Your task to perform on an android device: turn on wifi Image 0: 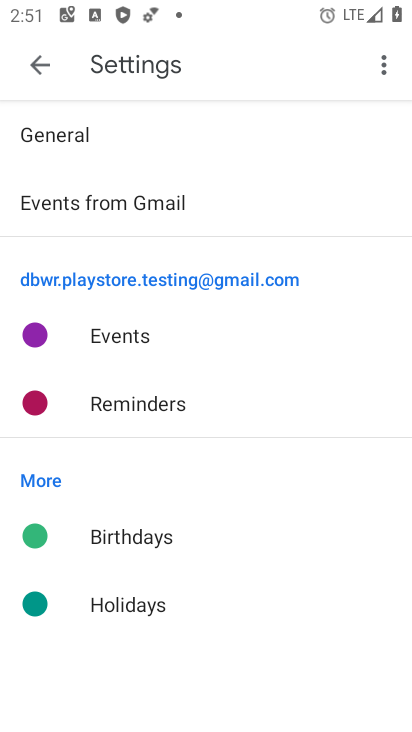
Step 0: drag from (164, 207) to (235, 528)
Your task to perform on an android device: turn on wifi Image 1: 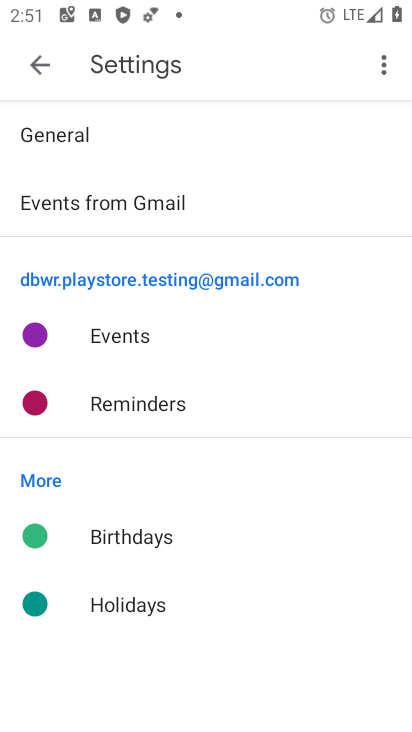
Step 1: click (42, 65)
Your task to perform on an android device: turn on wifi Image 2: 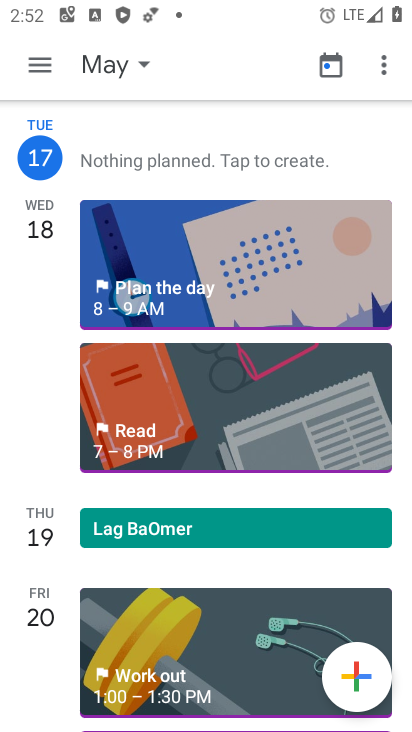
Step 2: click (109, 74)
Your task to perform on an android device: turn on wifi Image 3: 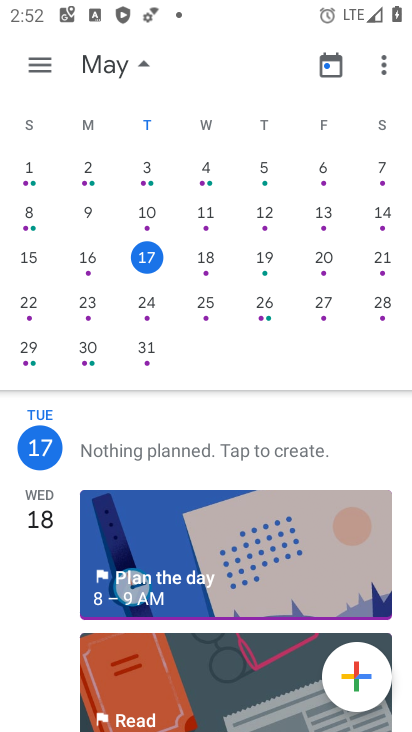
Step 3: press home button
Your task to perform on an android device: turn on wifi Image 4: 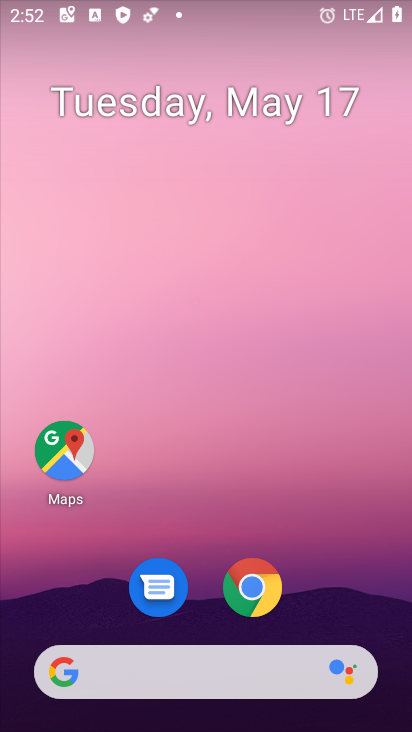
Step 4: drag from (218, 621) to (217, 116)
Your task to perform on an android device: turn on wifi Image 5: 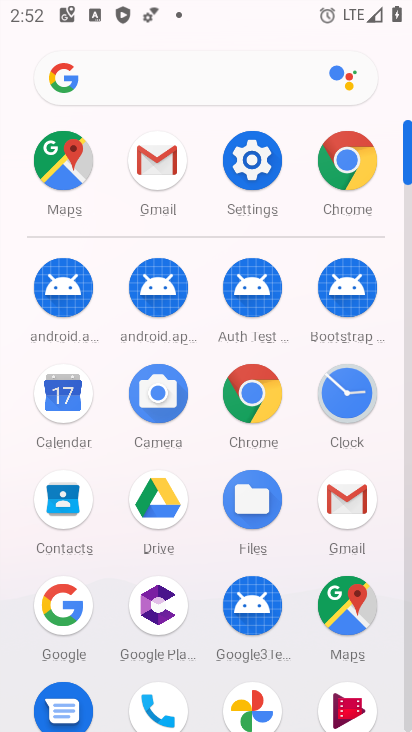
Step 5: click (256, 158)
Your task to perform on an android device: turn on wifi Image 6: 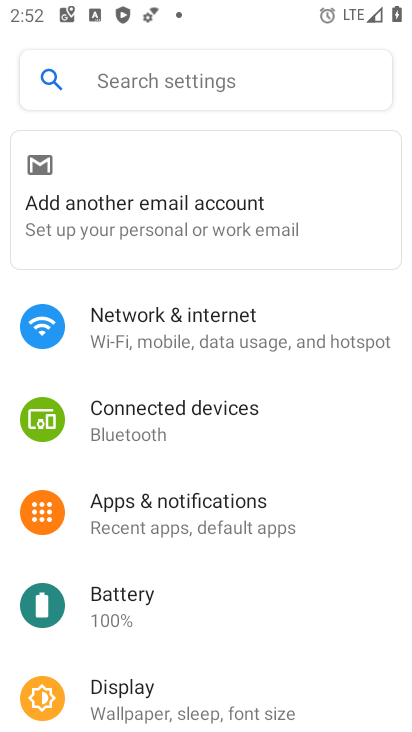
Step 6: click (128, 343)
Your task to perform on an android device: turn on wifi Image 7: 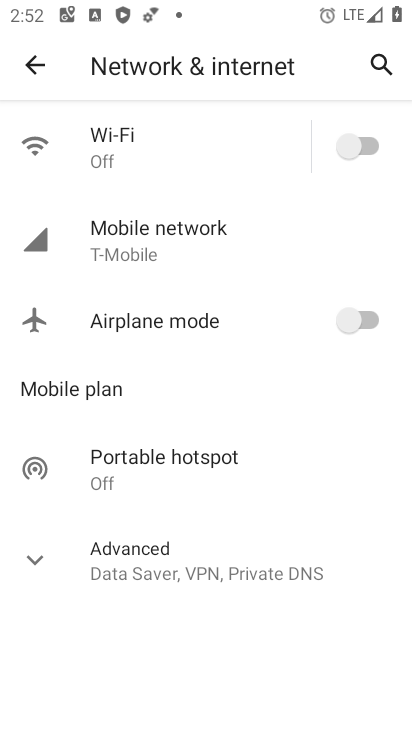
Step 7: click (156, 113)
Your task to perform on an android device: turn on wifi Image 8: 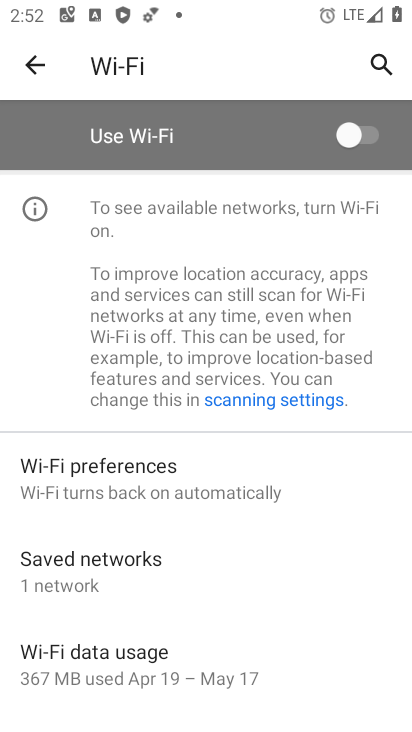
Step 8: click (284, 164)
Your task to perform on an android device: turn on wifi Image 9: 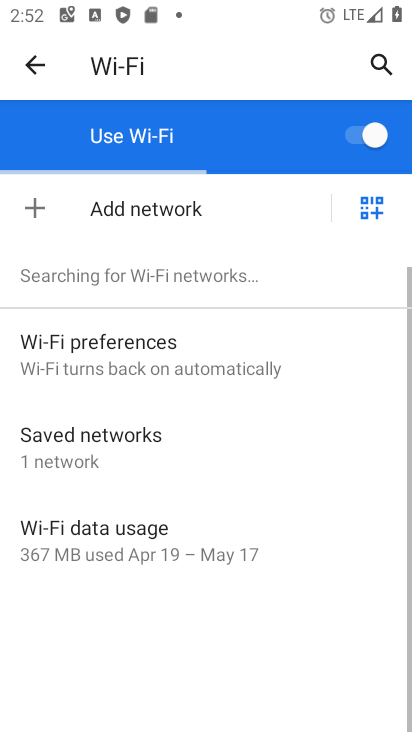
Step 9: task complete